Your task to perform on an android device: Go to eBay Image 0: 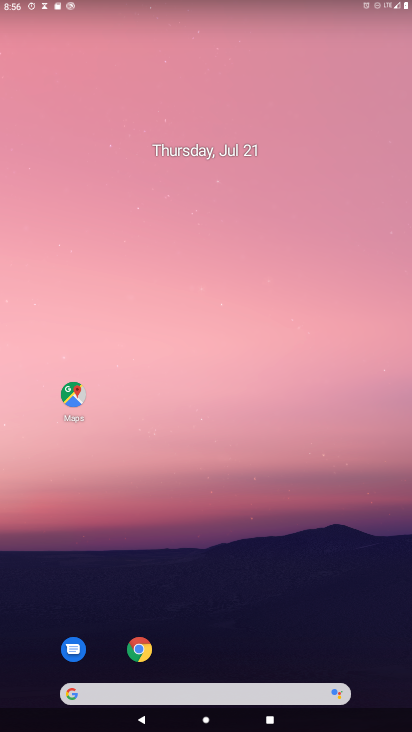
Step 0: drag from (396, 674) to (269, 93)
Your task to perform on an android device: Go to eBay Image 1: 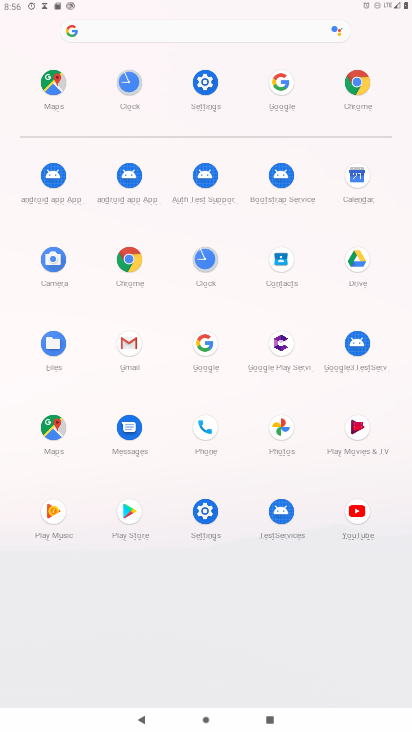
Step 1: click (205, 347)
Your task to perform on an android device: Go to eBay Image 2: 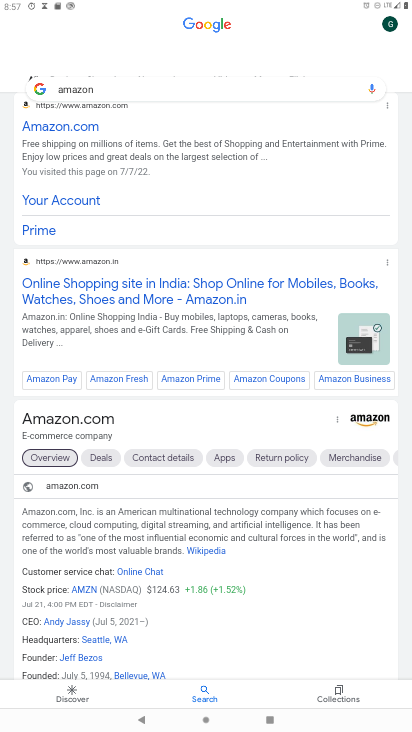
Step 2: press back button
Your task to perform on an android device: Go to eBay Image 3: 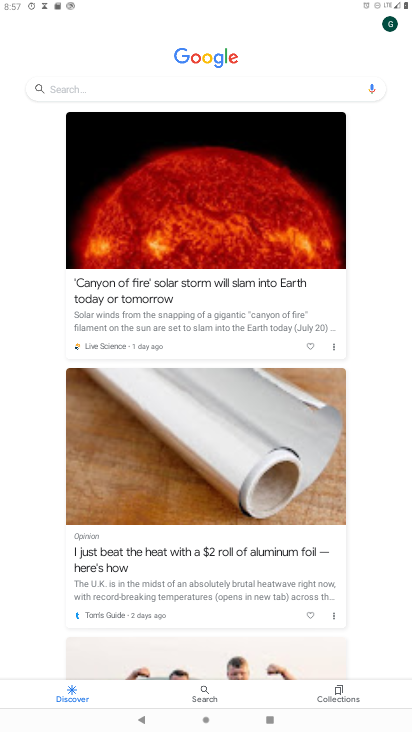
Step 3: click (96, 87)
Your task to perform on an android device: Go to eBay Image 4: 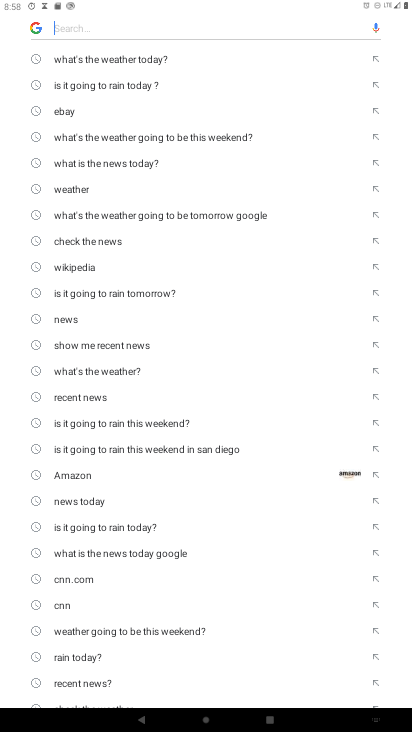
Step 4: click (51, 116)
Your task to perform on an android device: Go to eBay Image 5: 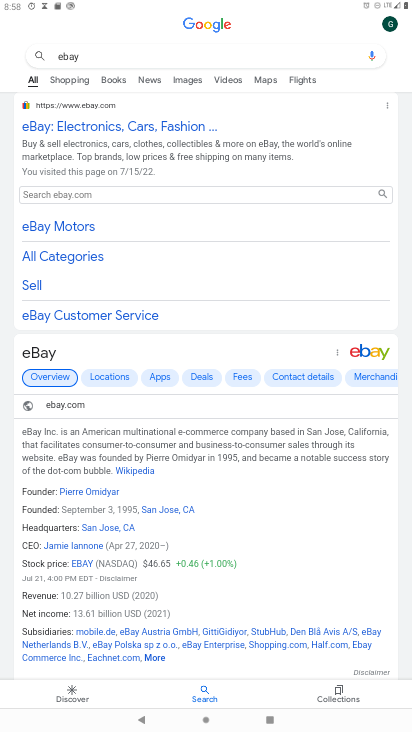
Step 5: task complete